Your task to perform on an android device: Open battery settings Image 0: 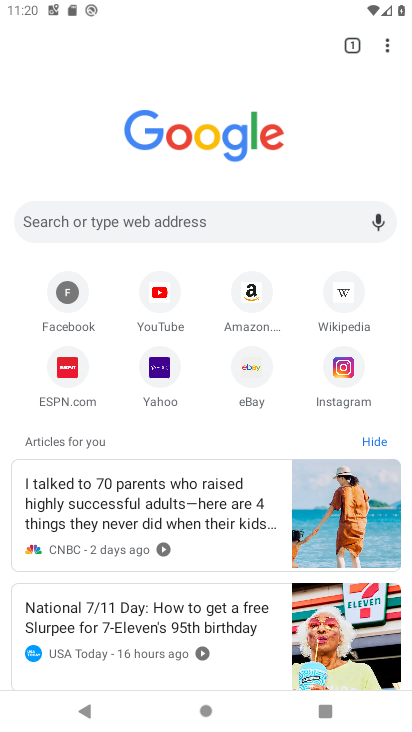
Step 0: press back button
Your task to perform on an android device: Open battery settings Image 1: 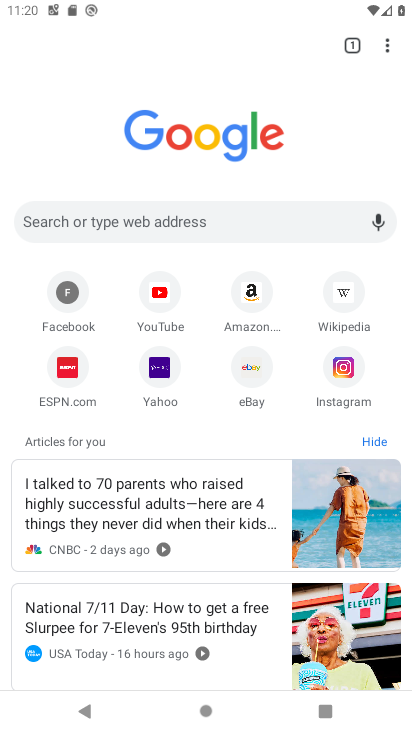
Step 1: press back button
Your task to perform on an android device: Open battery settings Image 2: 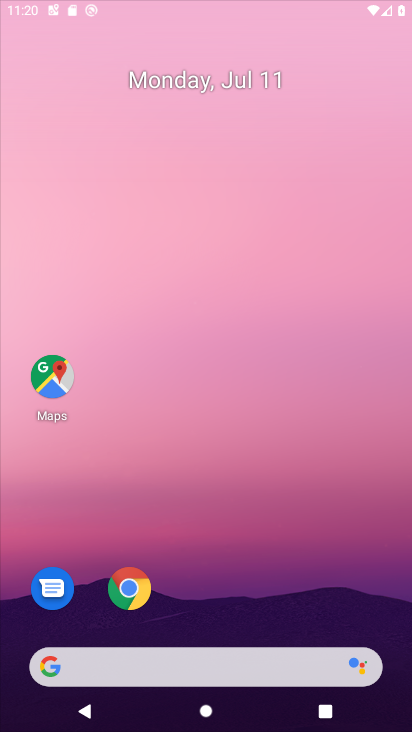
Step 2: press back button
Your task to perform on an android device: Open battery settings Image 3: 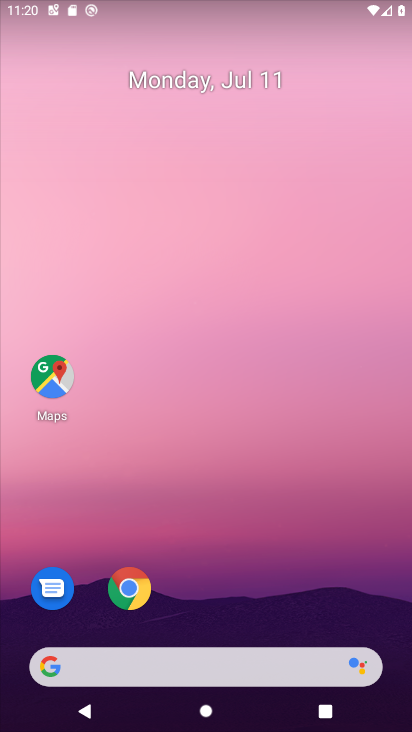
Step 3: drag from (252, 644) to (243, 273)
Your task to perform on an android device: Open battery settings Image 4: 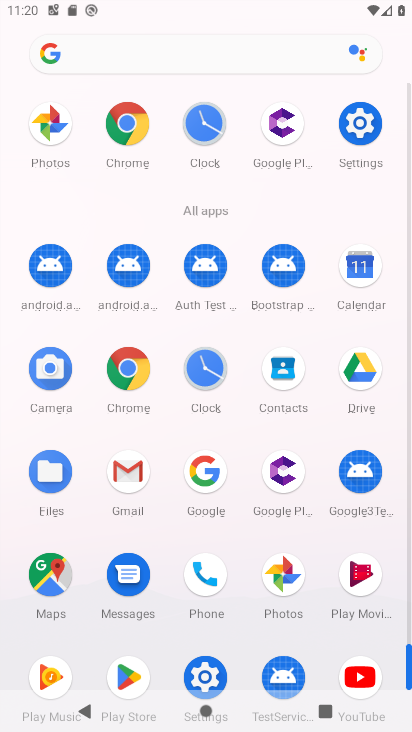
Step 4: click (381, 124)
Your task to perform on an android device: Open battery settings Image 5: 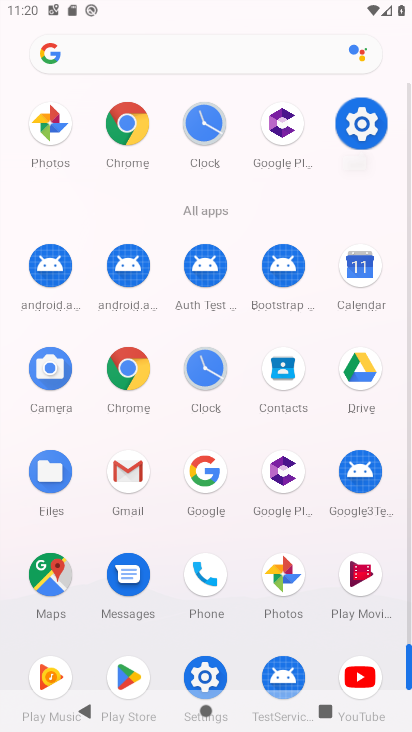
Step 5: click (375, 133)
Your task to perform on an android device: Open battery settings Image 6: 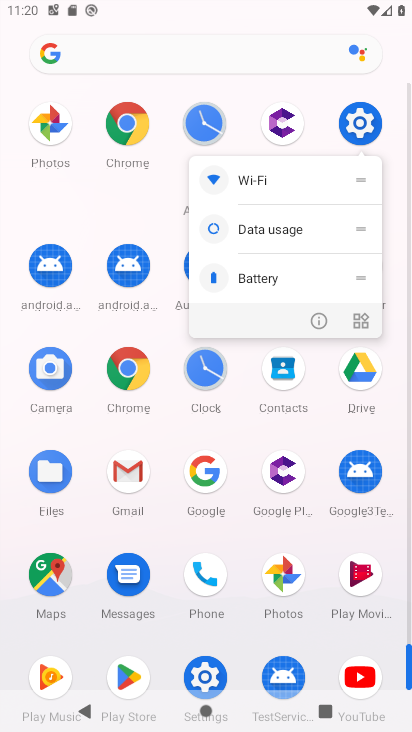
Step 6: click (374, 136)
Your task to perform on an android device: Open battery settings Image 7: 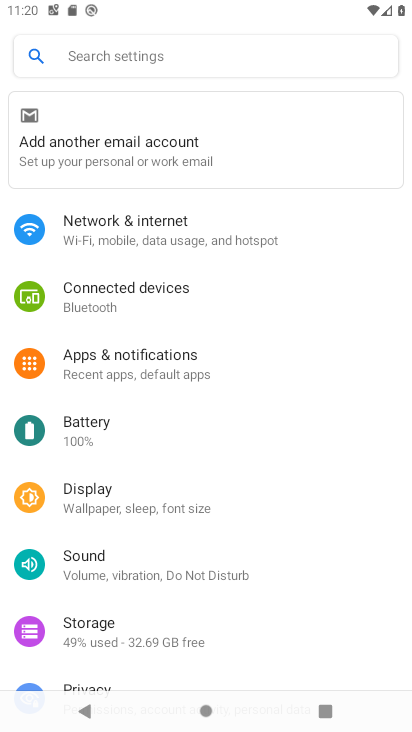
Step 7: click (70, 427)
Your task to perform on an android device: Open battery settings Image 8: 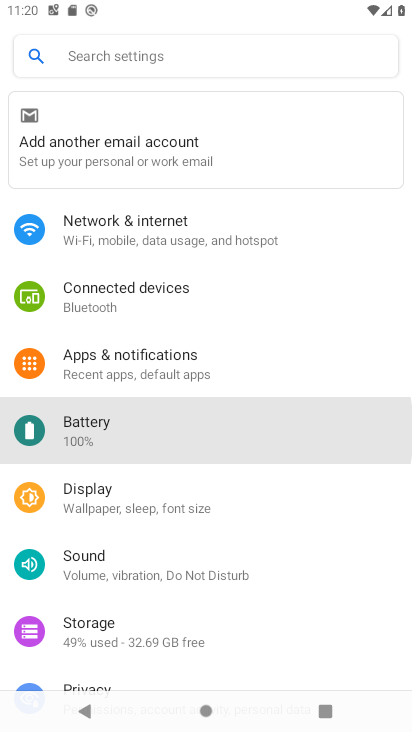
Step 8: click (70, 427)
Your task to perform on an android device: Open battery settings Image 9: 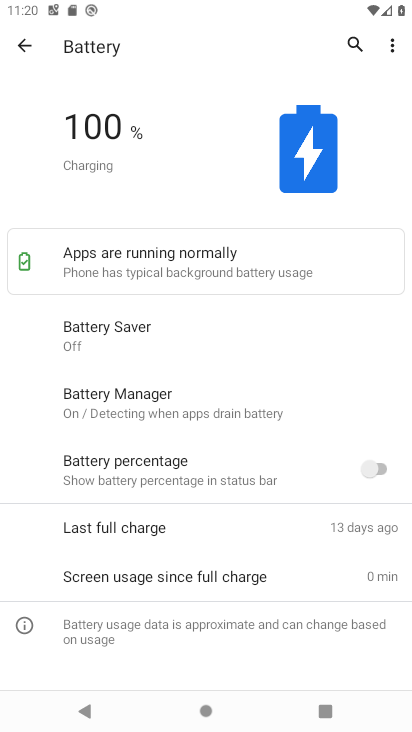
Step 9: task complete